Your task to perform on an android device: Open the calendar app, open the side menu, and click the "Day" option Image 0: 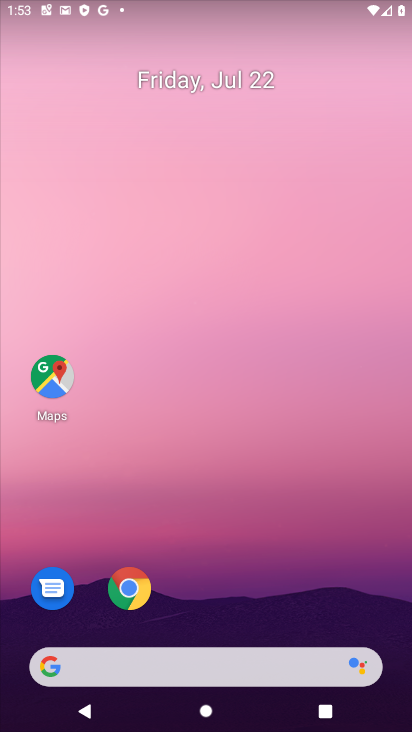
Step 0: drag from (221, 602) to (281, 0)
Your task to perform on an android device: Open the calendar app, open the side menu, and click the "Day" option Image 1: 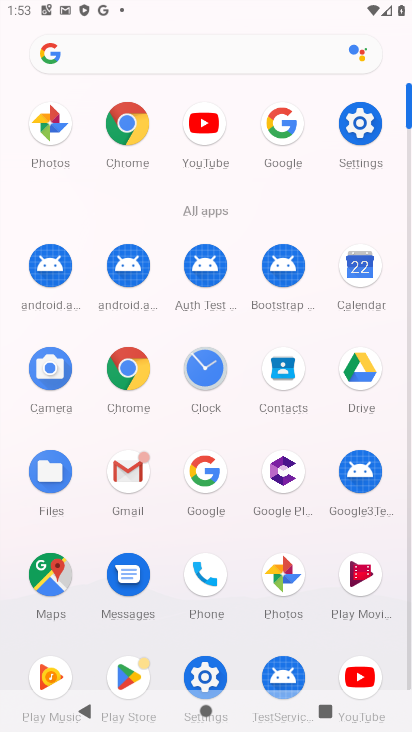
Step 1: click (377, 275)
Your task to perform on an android device: Open the calendar app, open the side menu, and click the "Day" option Image 2: 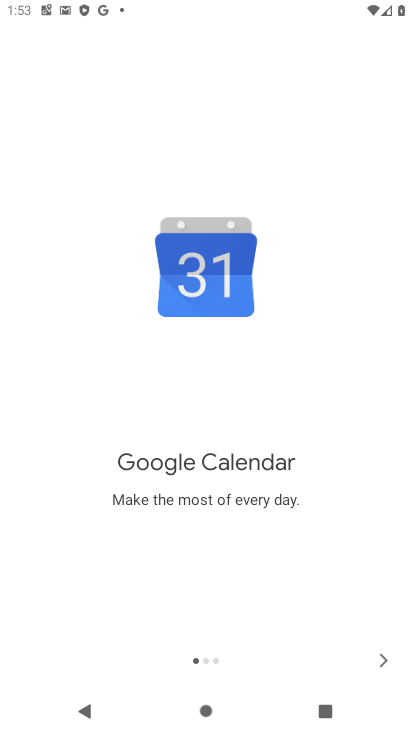
Step 2: click (379, 666)
Your task to perform on an android device: Open the calendar app, open the side menu, and click the "Day" option Image 3: 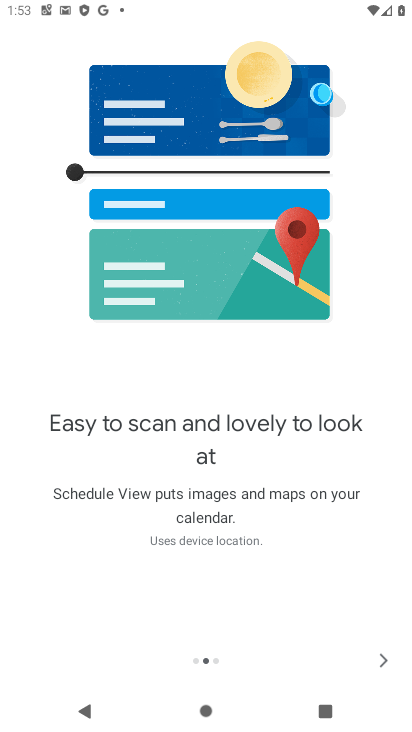
Step 3: click (380, 668)
Your task to perform on an android device: Open the calendar app, open the side menu, and click the "Day" option Image 4: 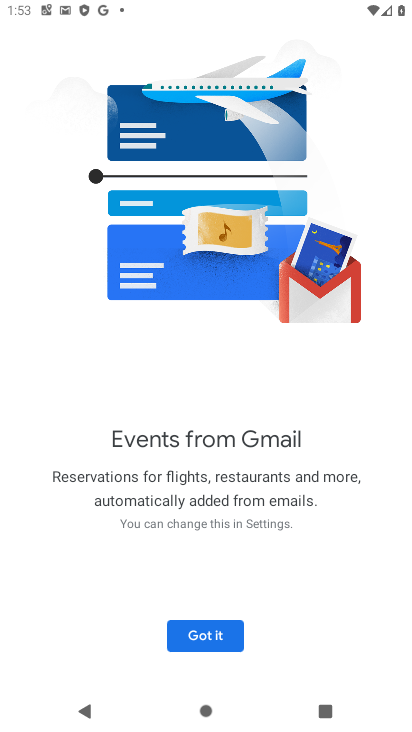
Step 4: click (175, 652)
Your task to perform on an android device: Open the calendar app, open the side menu, and click the "Day" option Image 5: 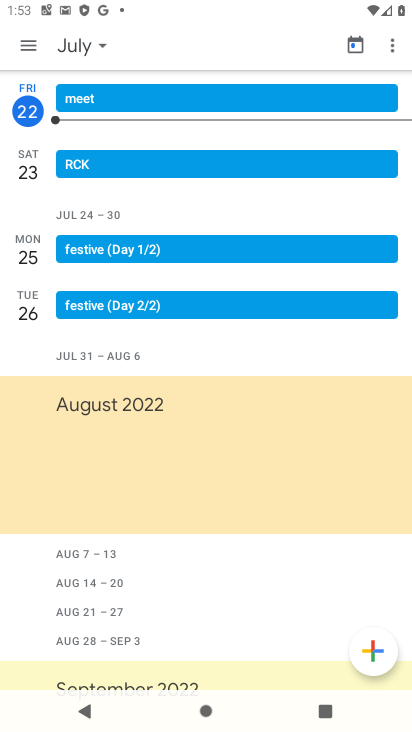
Step 5: click (19, 49)
Your task to perform on an android device: Open the calendar app, open the side menu, and click the "Day" option Image 6: 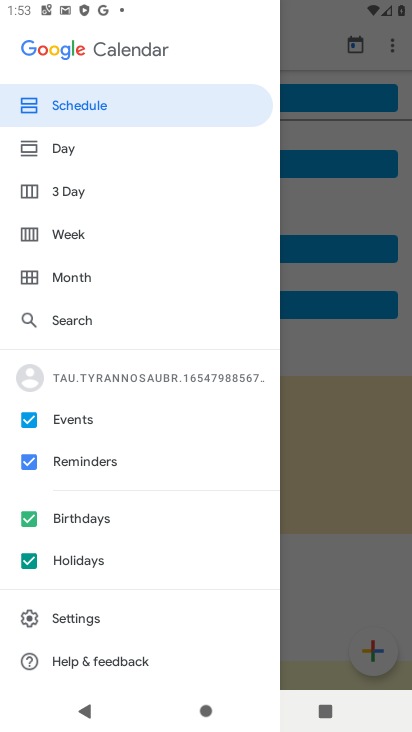
Step 6: click (51, 145)
Your task to perform on an android device: Open the calendar app, open the side menu, and click the "Day" option Image 7: 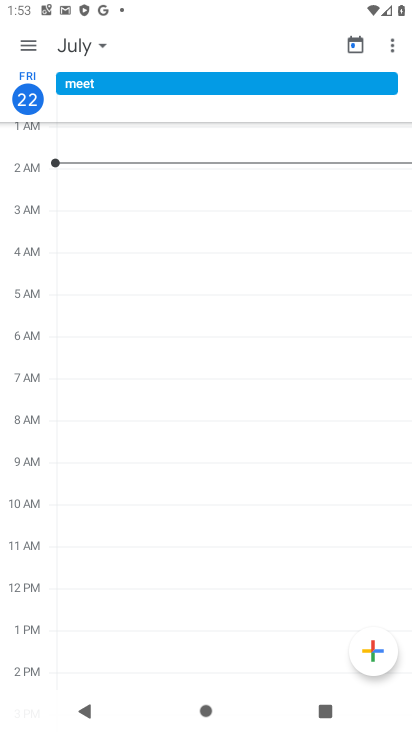
Step 7: click (29, 39)
Your task to perform on an android device: Open the calendar app, open the side menu, and click the "Day" option Image 8: 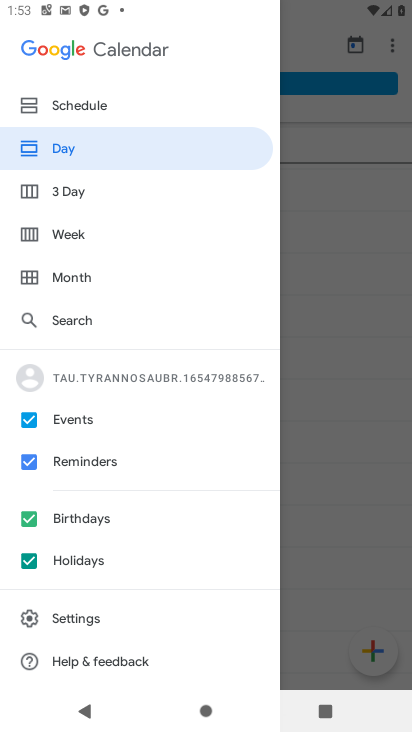
Step 8: click (164, 142)
Your task to perform on an android device: Open the calendar app, open the side menu, and click the "Day" option Image 9: 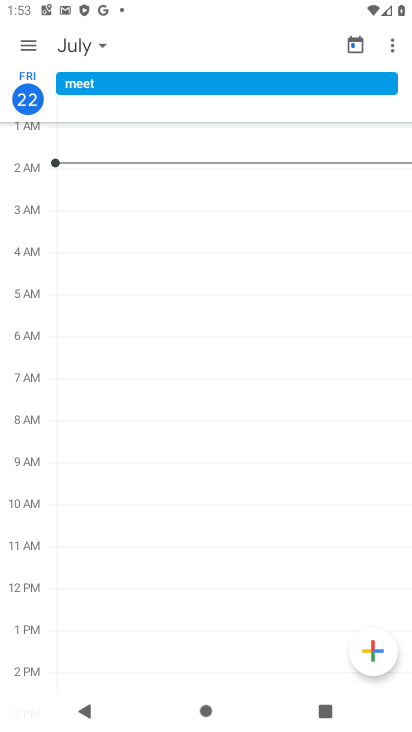
Step 9: task complete